Your task to perform on an android device: change alarm snooze length Image 0: 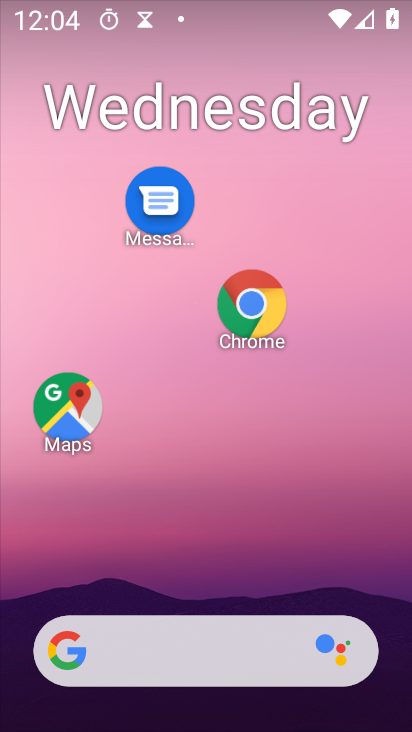
Step 0: drag from (254, 197) to (254, 143)
Your task to perform on an android device: change alarm snooze length Image 1: 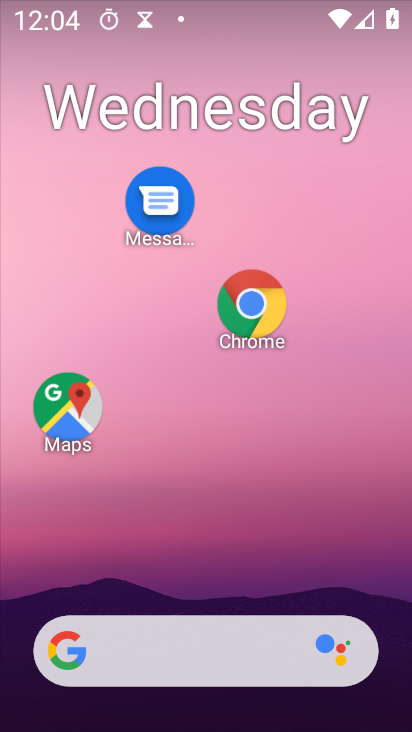
Step 1: drag from (323, 400) to (320, 61)
Your task to perform on an android device: change alarm snooze length Image 2: 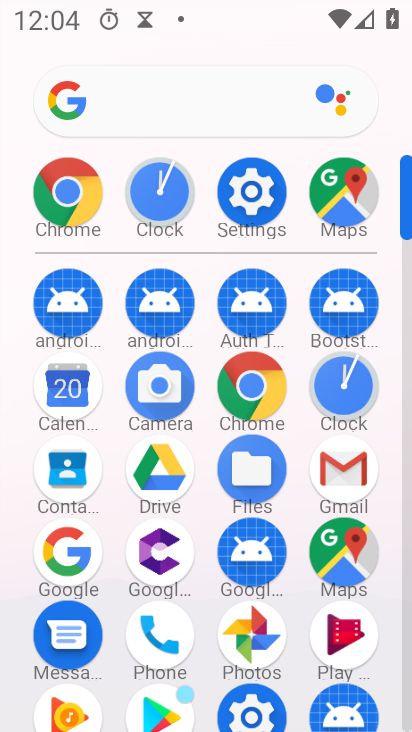
Step 2: click (370, 367)
Your task to perform on an android device: change alarm snooze length Image 3: 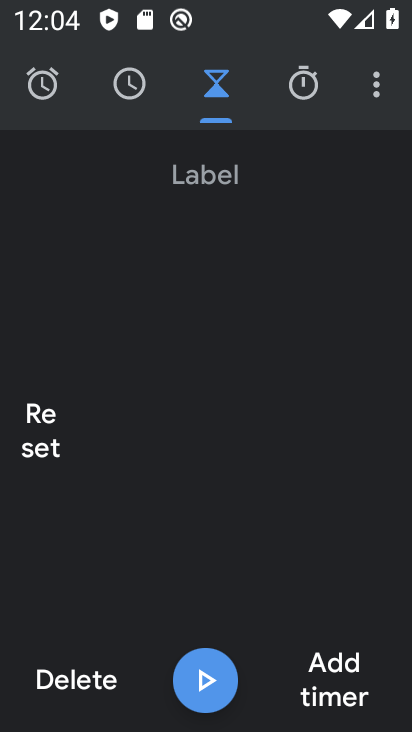
Step 3: click (346, 387)
Your task to perform on an android device: change alarm snooze length Image 4: 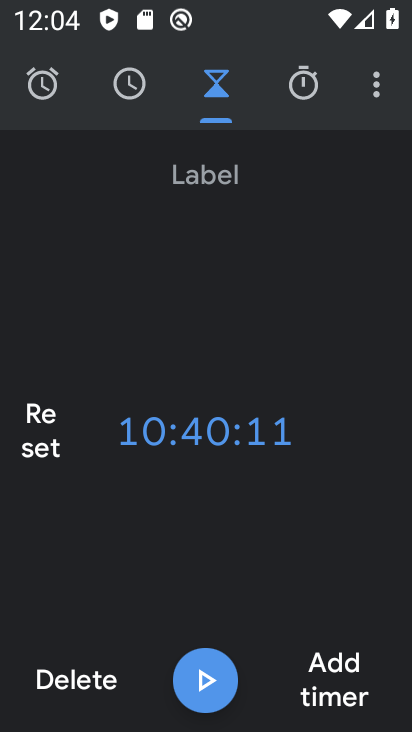
Step 4: click (379, 85)
Your task to perform on an android device: change alarm snooze length Image 5: 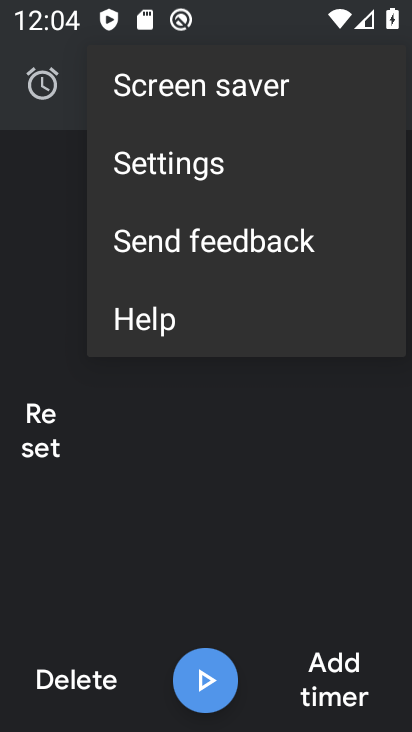
Step 5: click (256, 163)
Your task to perform on an android device: change alarm snooze length Image 6: 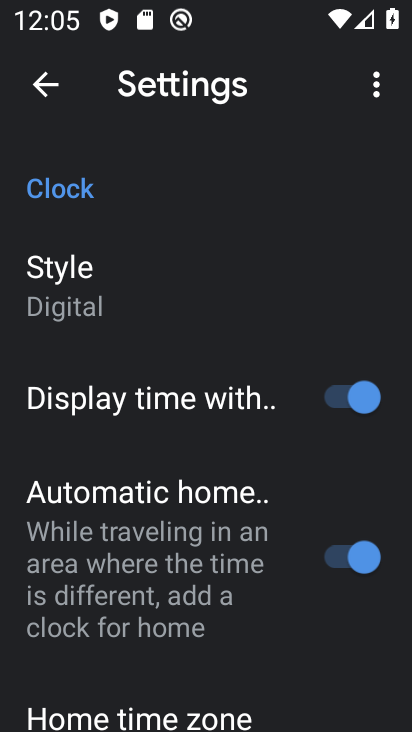
Step 6: drag from (213, 563) to (264, 158)
Your task to perform on an android device: change alarm snooze length Image 7: 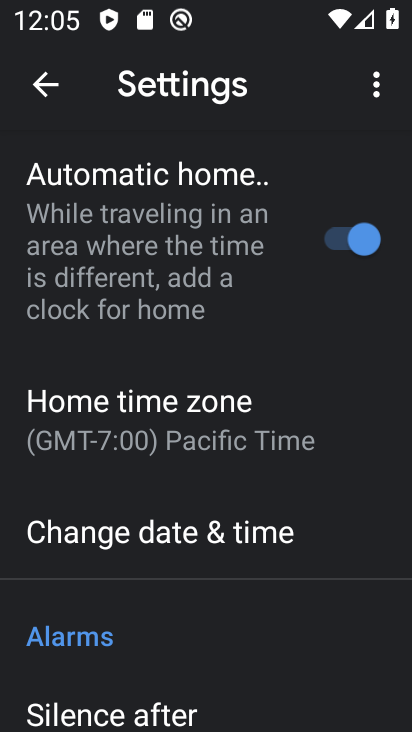
Step 7: drag from (208, 601) to (303, 195)
Your task to perform on an android device: change alarm snooze length Image 8: 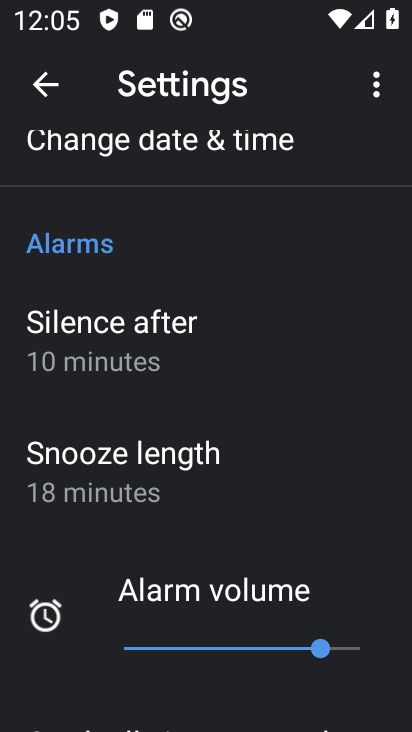
Step 8: click (180, 474)
Your task to perform on an android device: change alarm snooze length Image 9: 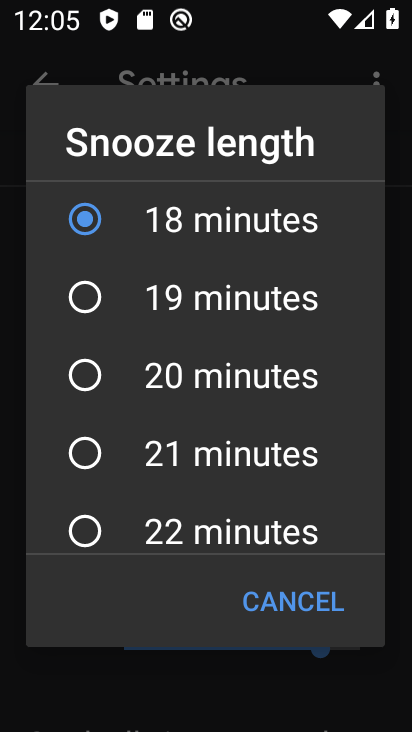
Step 9: drag from (166, 462) to (216, 221)
Your task to perform on an android device: change alarm snooze length Image 10: 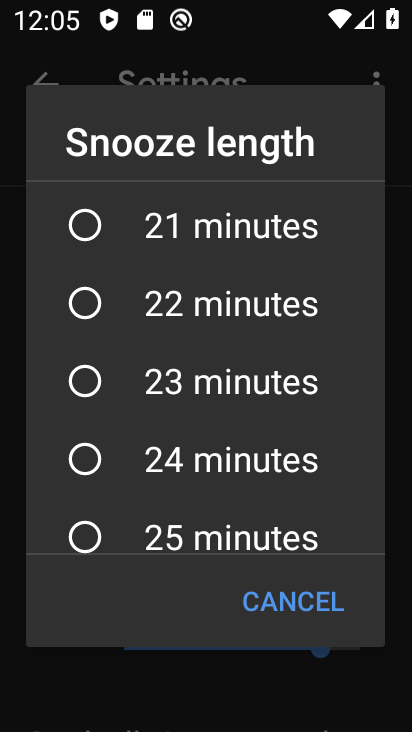
Step 10: click (191, 466)
Your task to perform on an android device: change alarm snooze length Image 11: 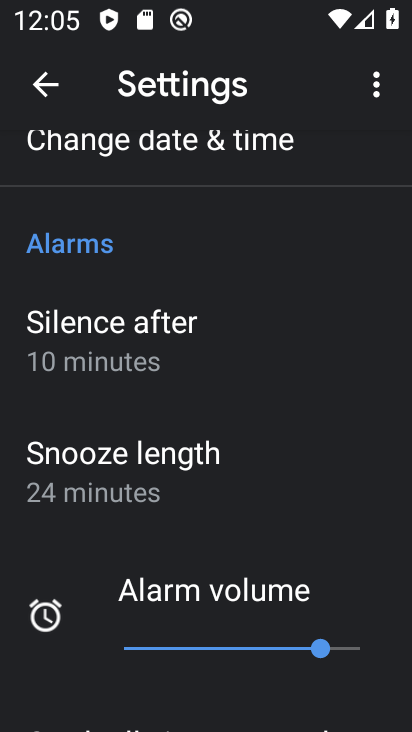
Step 11: click (135, 478)
Your task to perform on an android device: change alarm snooze length Image 12: 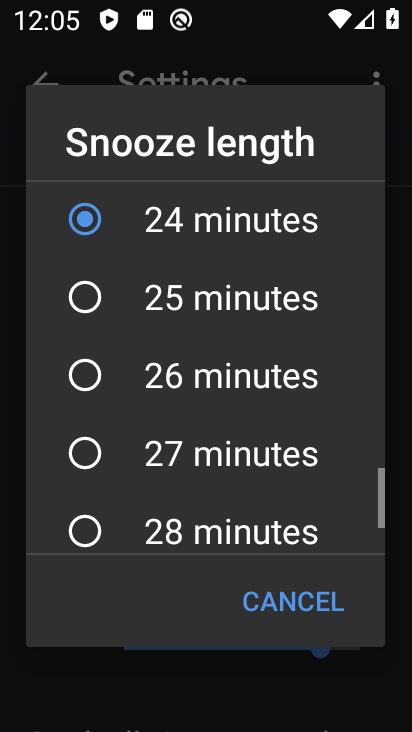
Step 12: click (217, 314)
Your task to perform on an android device: change alarm snooze length Image 13: 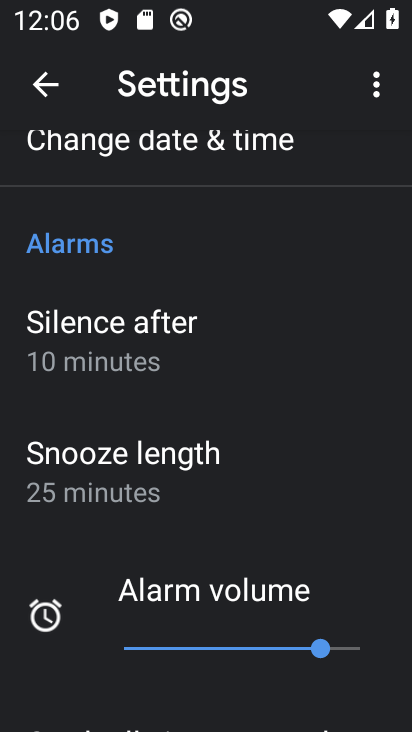
Step 13: task complete